Your task to perform on an android device: change the clock style Image 0: 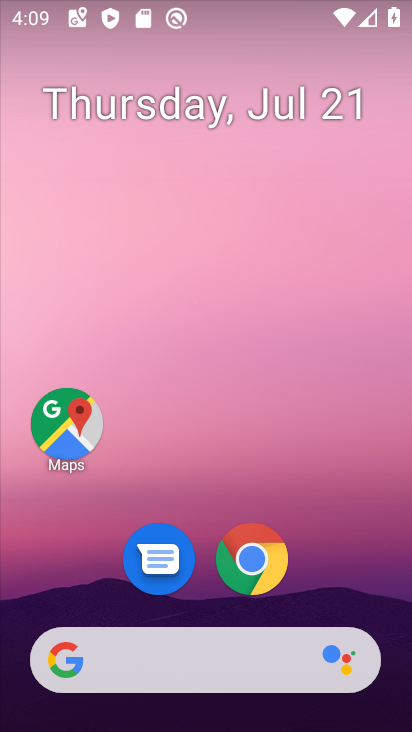
Step 0: drag from (194, 562) to (332, 3)
Your task to perform on an android device: change the clock style Image 1: 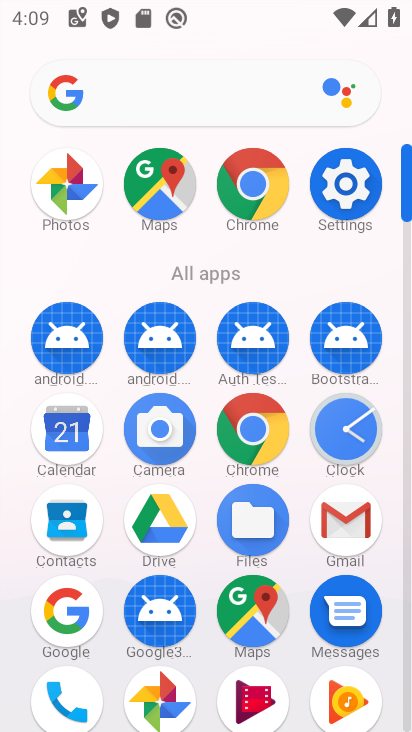
Step 1: click (339, 434)
Your task to perform on an android device: change the clock style Image 2: 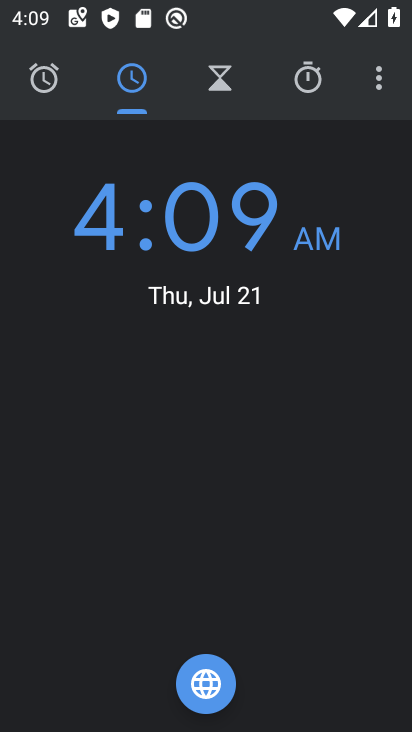
Step 2: click (379, 74)
Your task to perform on an android device: change the clock style Image 3: 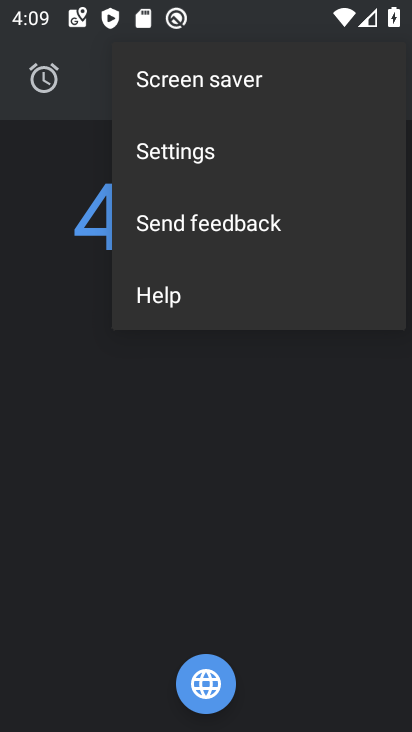
Step 3: click (199, 156)
Your task to perform on an android device: change the clock style Image 4: 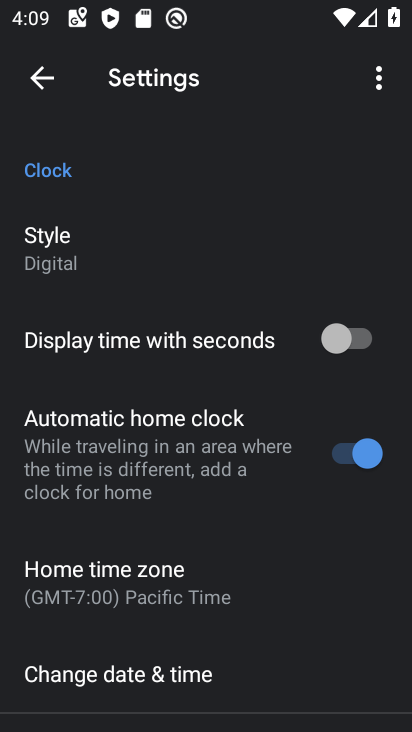
Step 4: click (57, 239)
Your task to perform on an android device: change the clock style Image 5: 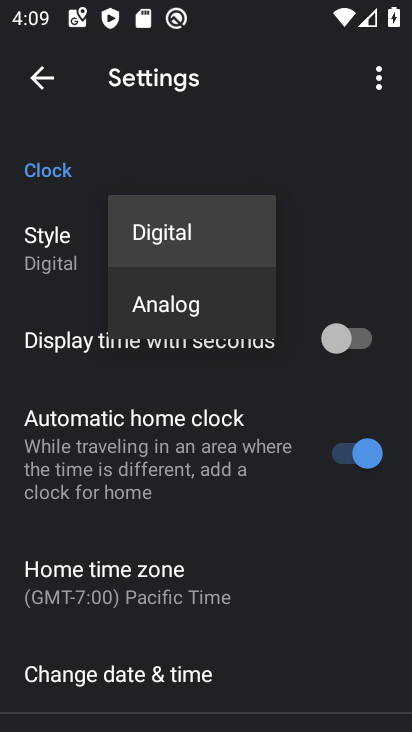
Step 5: click (175, 305)
Your task to perform on an android device: change the clock style Image 6: 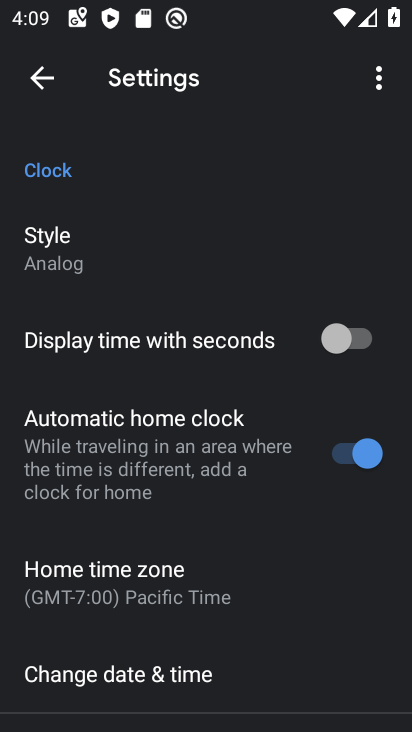
Step 6: task complete